Your task to perform on an android device: Is it going to rain this weekend? Image 0: 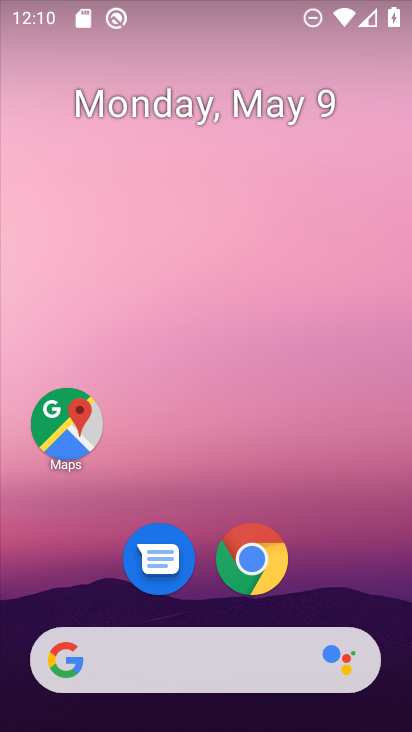
Step 0: click (268, 561)
Your task to perform on an android device: Is it going to rain this weekend? Image 1: 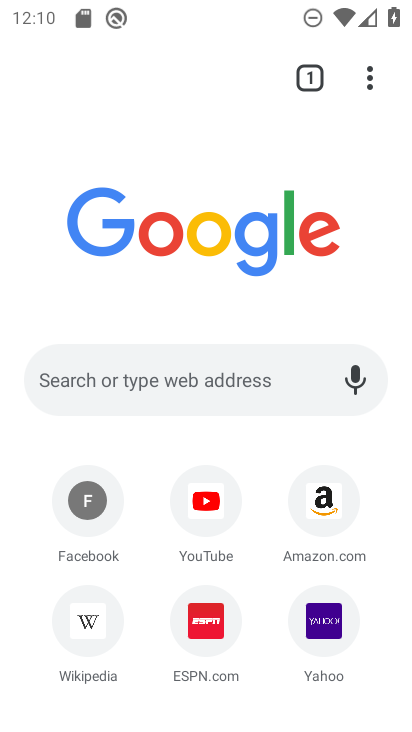
Step 1: click (213, 368)
Your task to perform on an android device: Is it going to rain this weekend? Image 2: 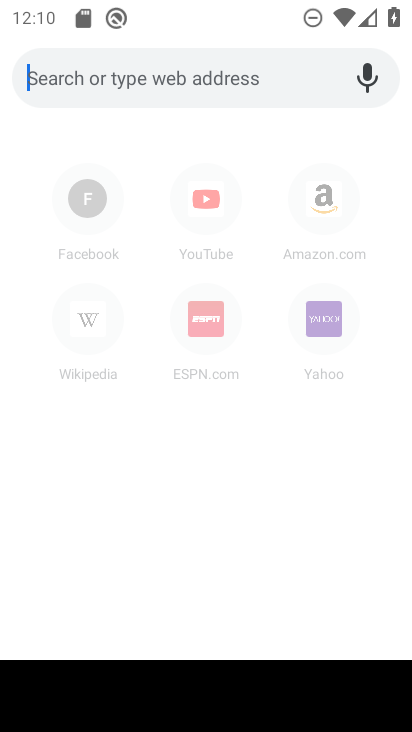
Step 2: type "Is it going to rain this weekend?"
Your task to perform on an android device: Is it going to rain this weekend? Image 3: 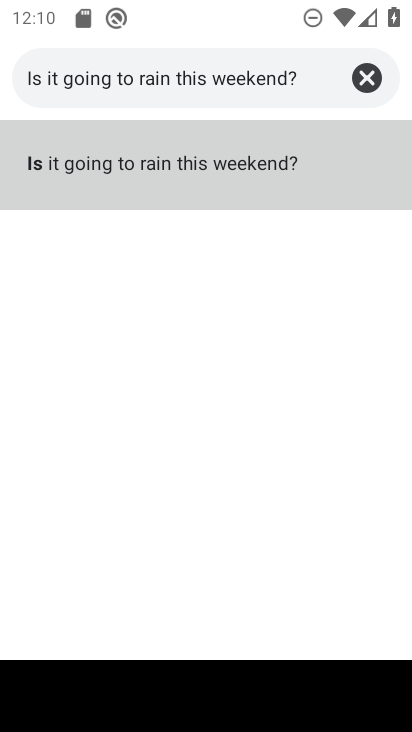
Step 3: click (247, 161)
Your task to perform on an android device: Is it going to rain this weekend? Image 4: 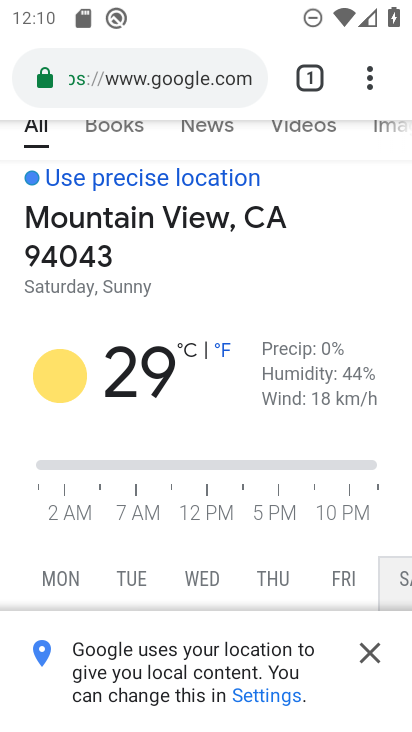
Step 4: task complete